Your task to perform on an android device: turn on priority inbox in the gmail app Image 0: 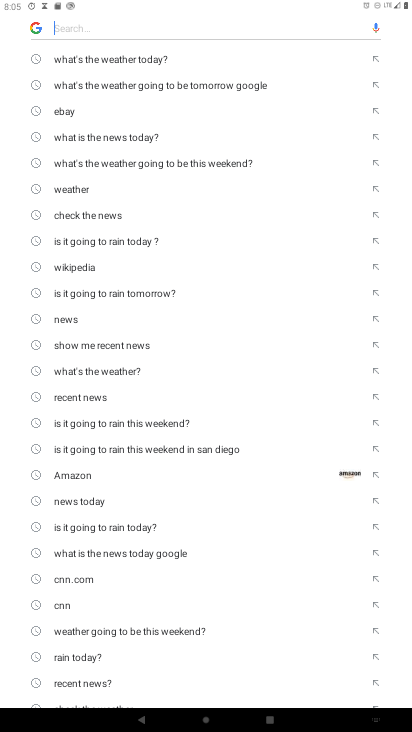
Step 0: press home button
Your task to perform on an android device: turn on priority inbox in the gmail app Image 1: 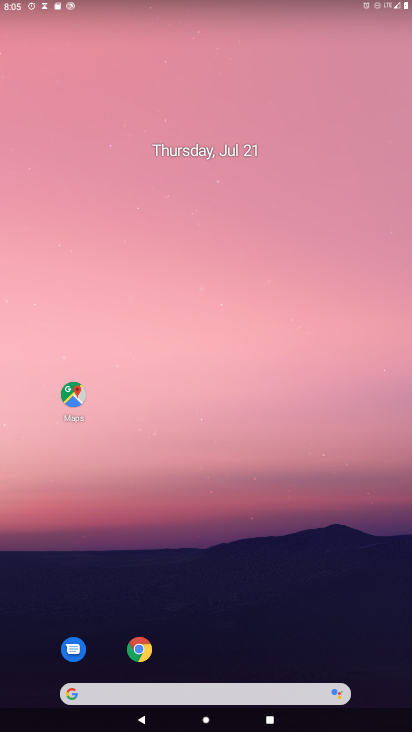
Step 1: drag from (337, 639) to (114, 19)
Your task to perform on an android device: turn on priority inbox in the gmail app Image 2: 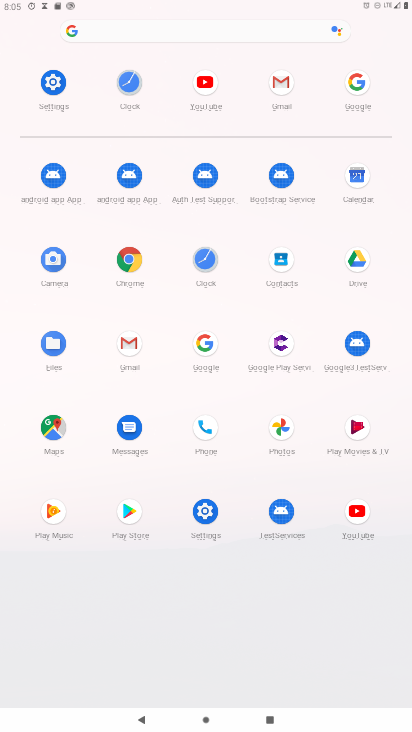
Step 2: click (125, 343)
Your task to perform on an android device: turn on priority inbox in the gmail app Image 3: 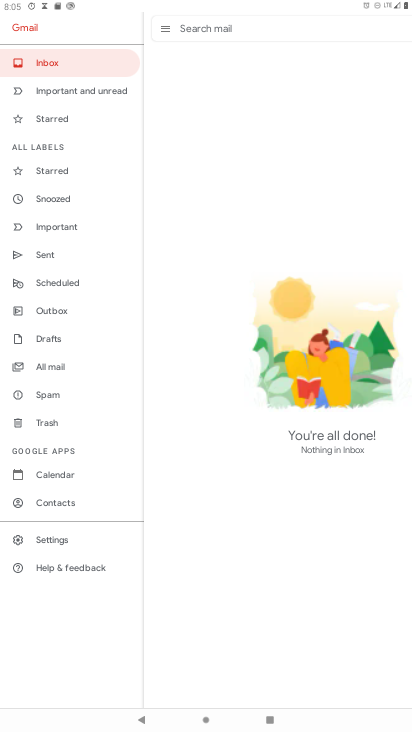
Step 3: click (64, 536)
Your task to perform on an android device: turn on priority inbox in the gmail app Image 4: 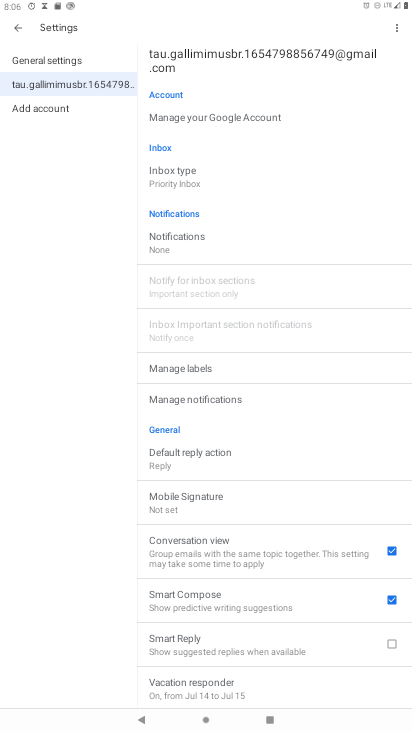
Step 4: click (193, 184)
Your task to perform on an android device: turn on priority inbox in the gmail app Image 5: 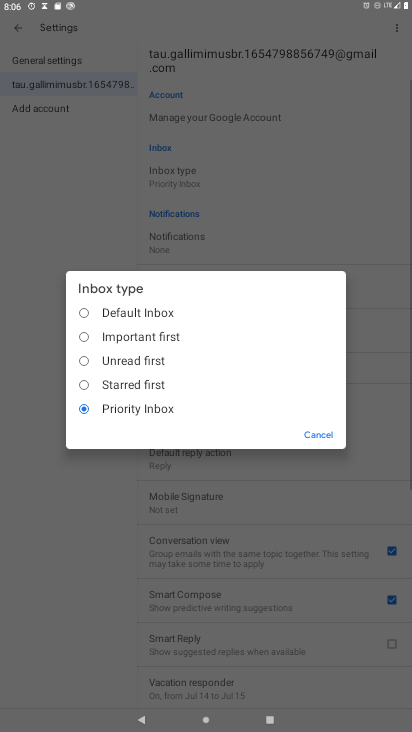
Step 5: click (137, 411)
Your task to perform on an android device: turn on priority inbox in the gmail app Image 6: 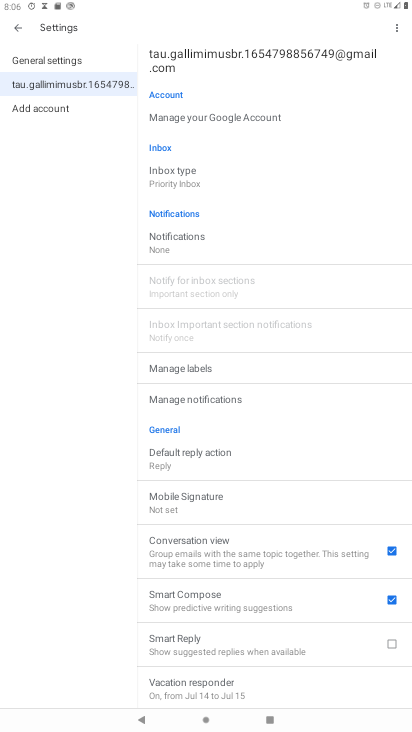
Step 6: task complete